Your task to perform on an android device: What's on the menu at Burger King? Image 0: 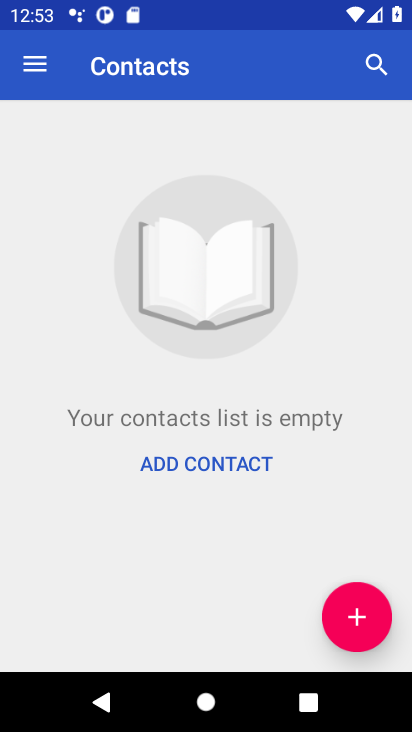
Step 0: press home button
Your task to perform on an android device: What's on the menu at Burger King? Image 1: 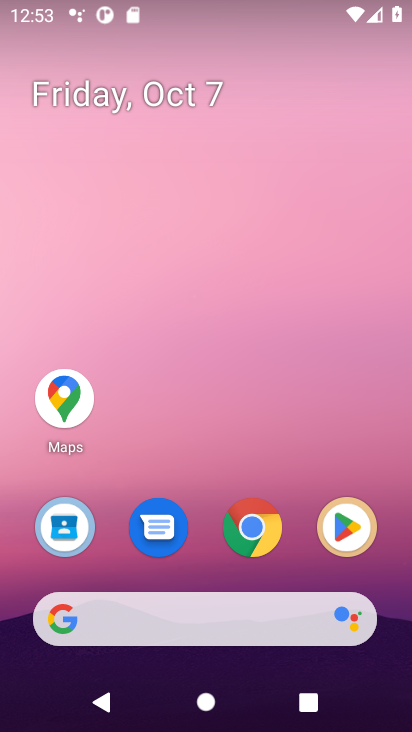
Step 1: click (169, 620)
Your task to perform on an android device: What's on the menu at Burger King? Image 2: 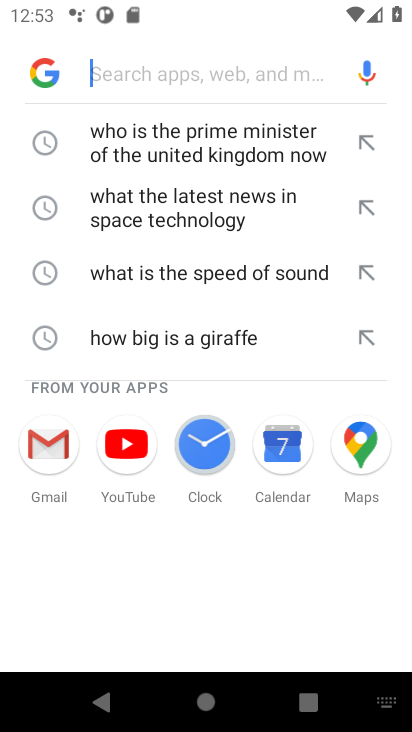
Step 2: type "What's on the menu at Burger King?"
Your task to perform on an android device: What's on the menu at Burger King? Image 3: 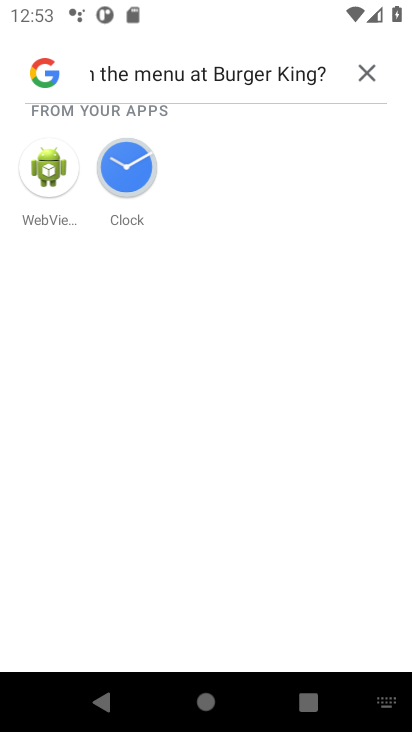
Step 3: click (304, 57)
Your task to perform on an android device: What's on the menu at Burger King? Image 4: 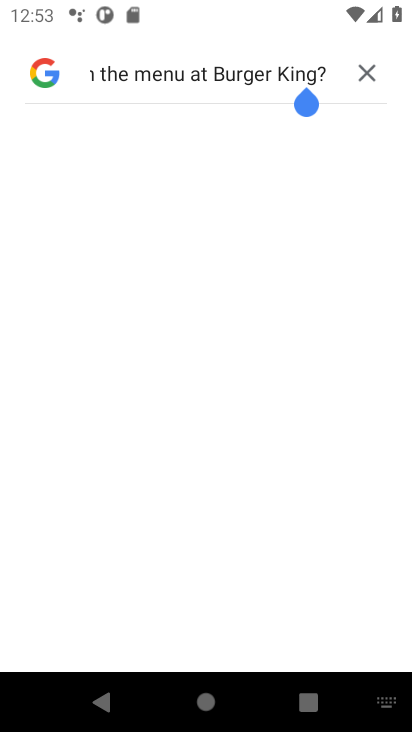
Step 4: task complete